Your task to perform on an android device: Search for sushi restaurants on Maps Image 0: 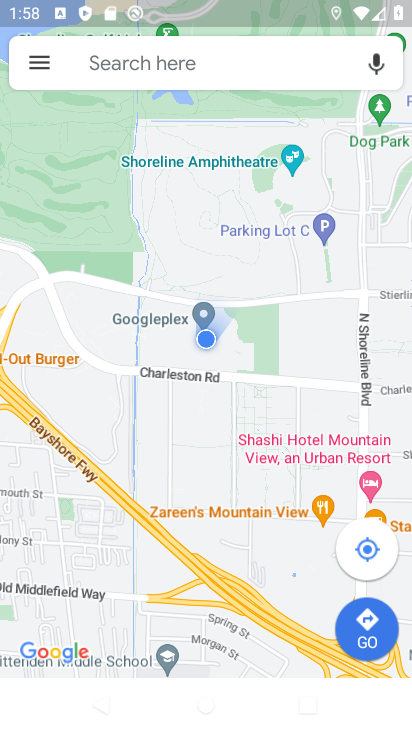
Step 0: click (125, 45)
Your task to perform on an android device: Search for sushi restaurants on Maps Image 1: 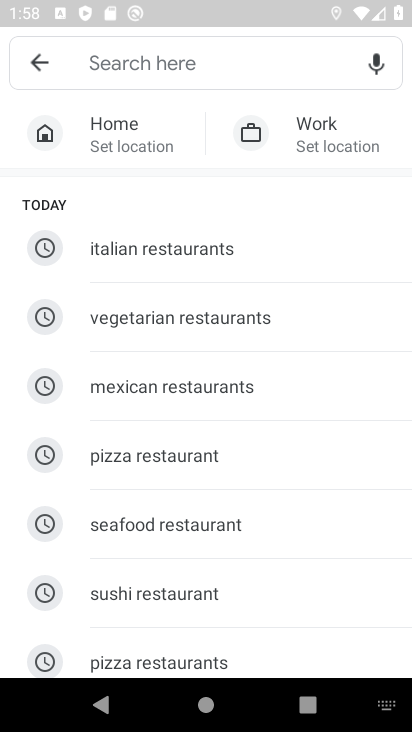
Step 1: type "sushi"
Your task to perform on an android device: Search for sushi restaurants on Maps Image 2: 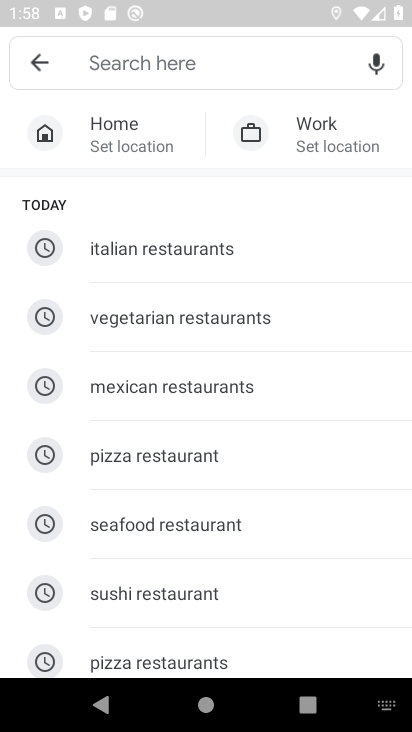
Step 2: click (281, 579)
Your task to perform on an android device: Search for sushi restaurants on Maps Image 3: 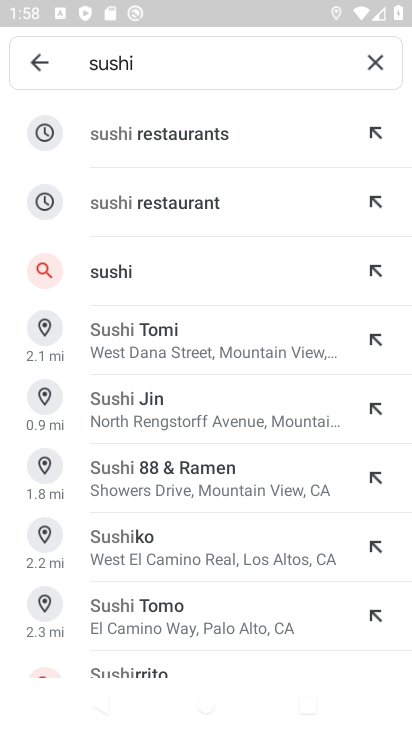
Step 3: task complete